Your task to perform on an android device: Open display settings Image 0: 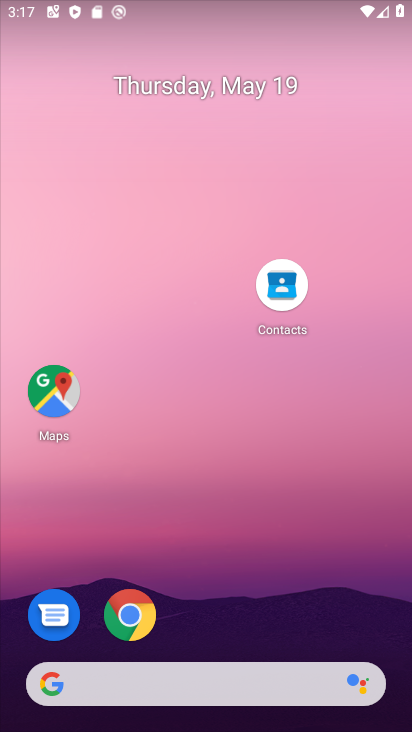
Step 0: drag from (232, 658) to (257, 159)
Your task to perform on an android device: Open display settings Image 1: 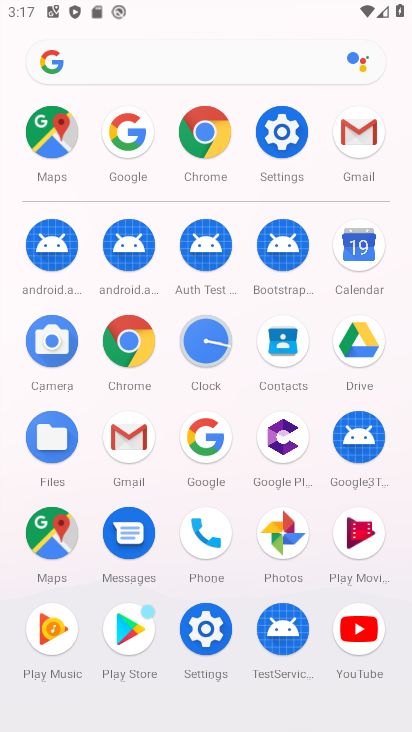
Step 1: click (290, 141)
Your task to perform on an android device: Open display settings Image 2: 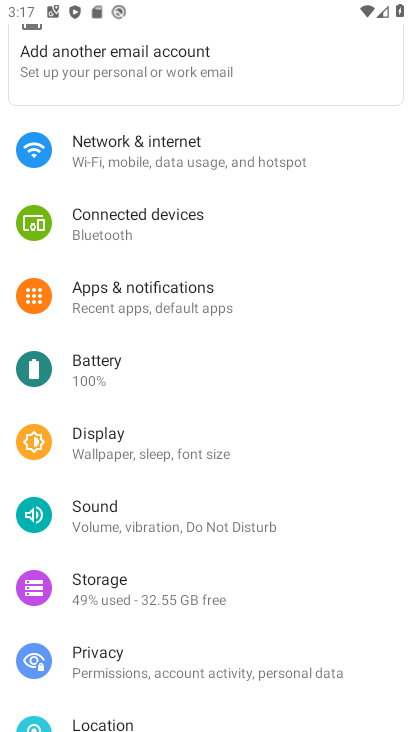
Step 2: drag from (134, 621) to (193, 312)
Your task to perform on an android device: Open display settings Image 3: 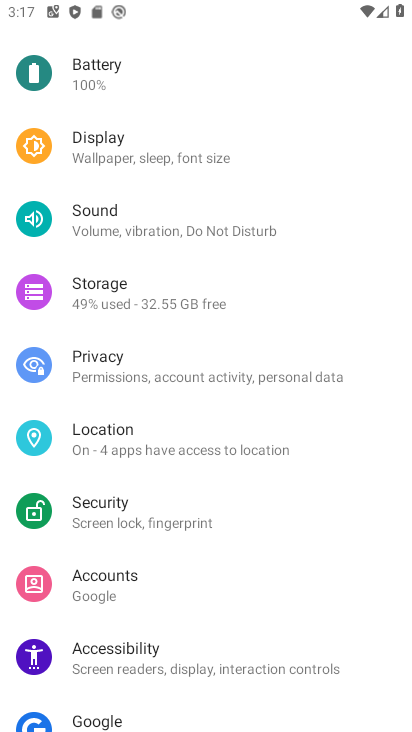
Step 3: click (184, 164)
Your task to perform on an android device: Open display settings Image 4: 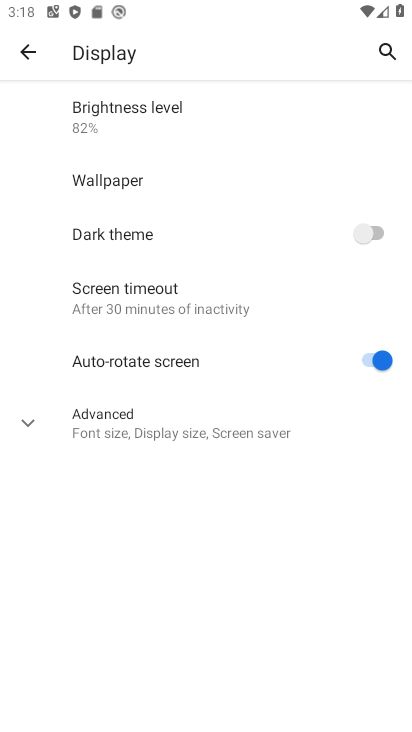
Step 4: click (235, 429)
Your task to perform on an android device: Open display settings Image 5: 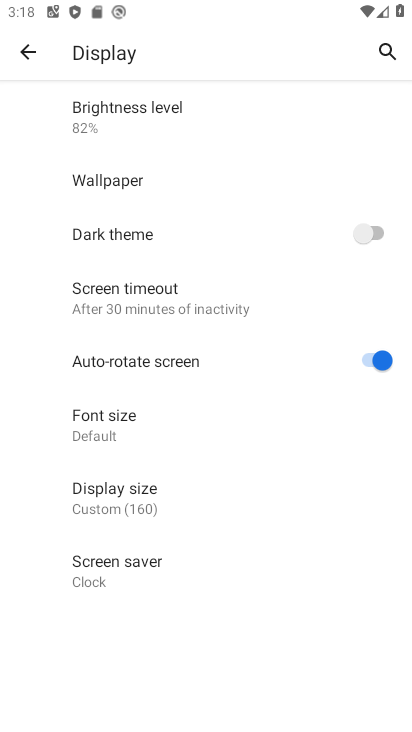
Step 5: task complete